Your task to perform on an android device: View the shopping cart on costco.com. Image 0: 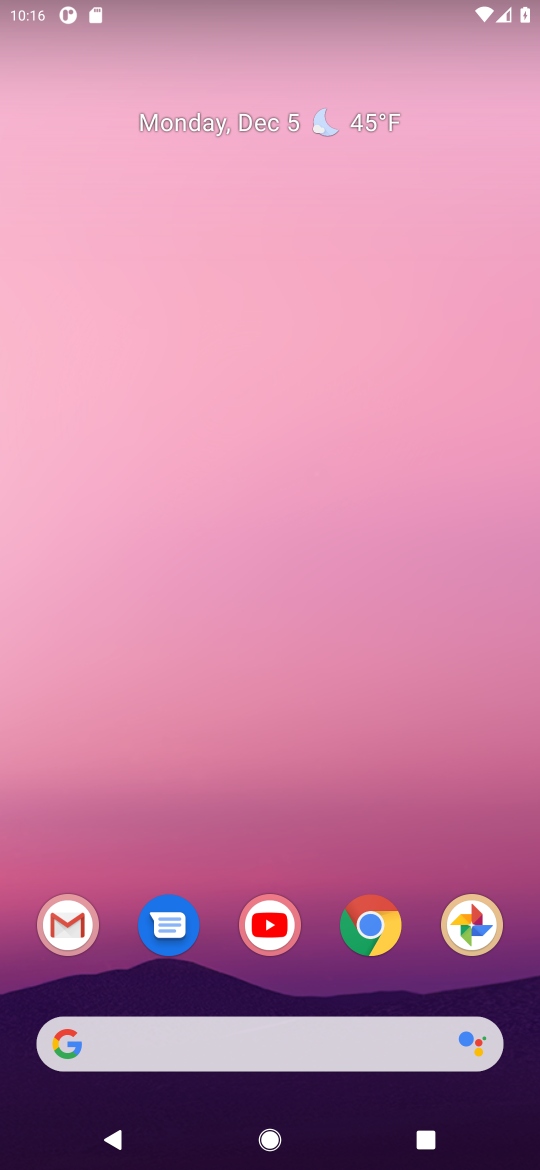
Step 0: click (365, 931)
Your task to perform on an android device: View the shopping cart on costco.com. Image 1: 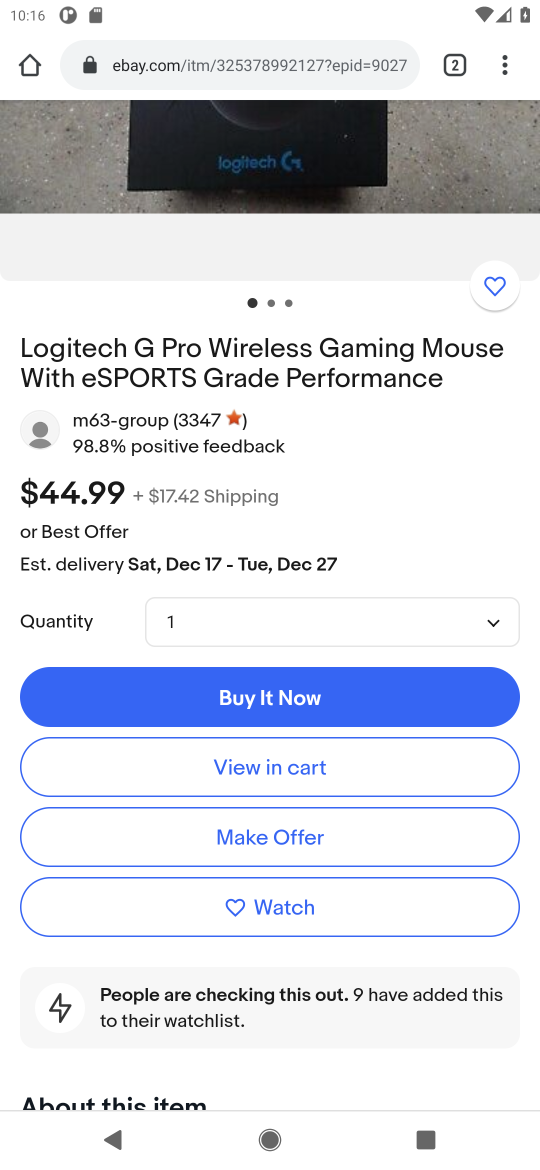
Step 1: click (207, 69)
Your task to perform on an android device: View the shopping cart on costco.com. Image 2: 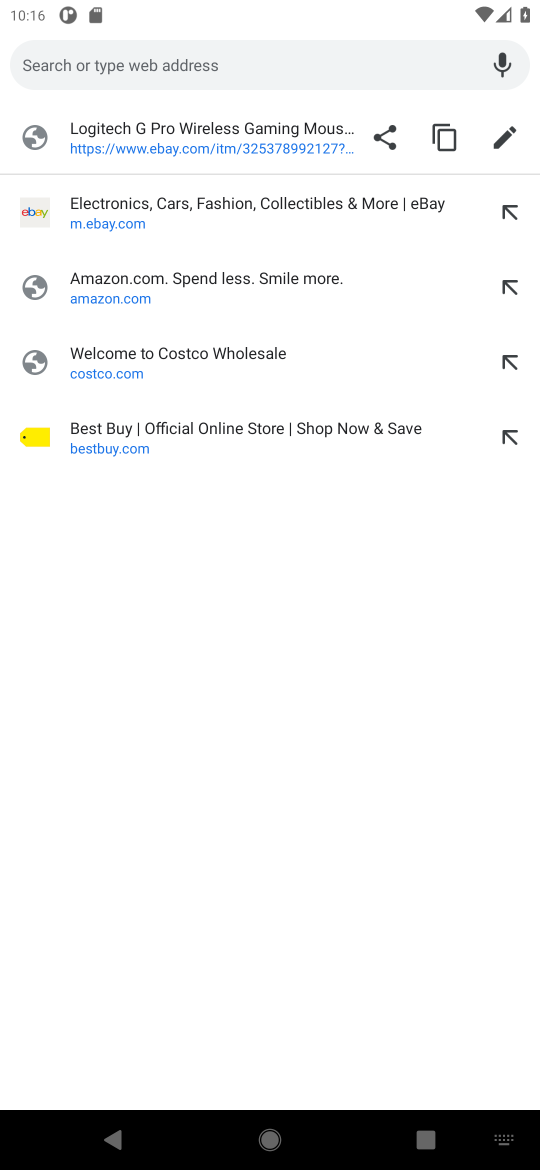
Step 2: click (92, 361)
Your task to perform on an android device: View the shopping cart on costco.com. Image 3: 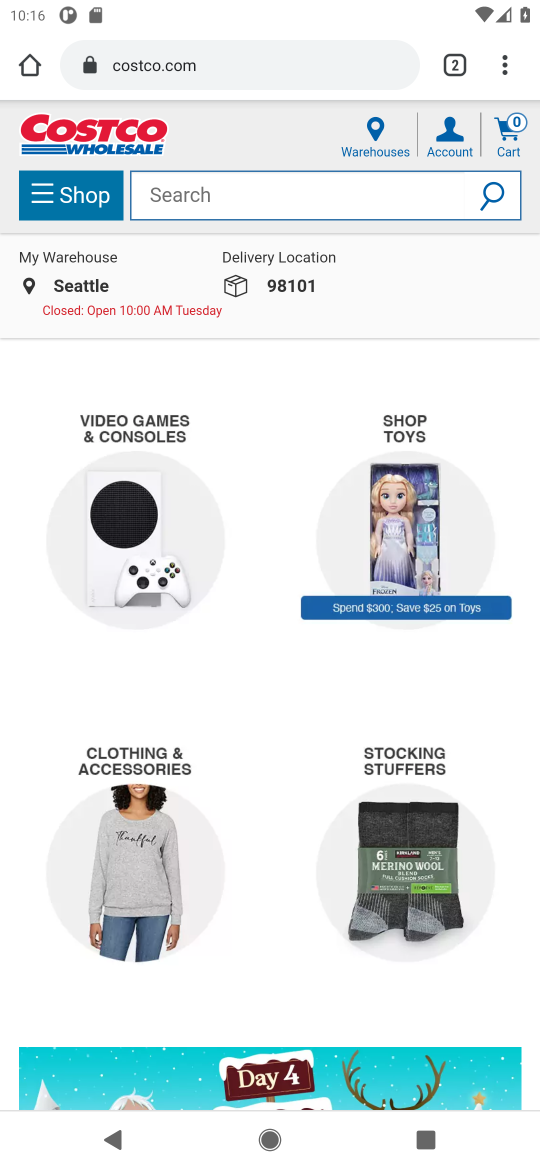
Step 3: click (506, 143)
Your task to perform on an android device: View the shopping cart on costco.com. Image 4: 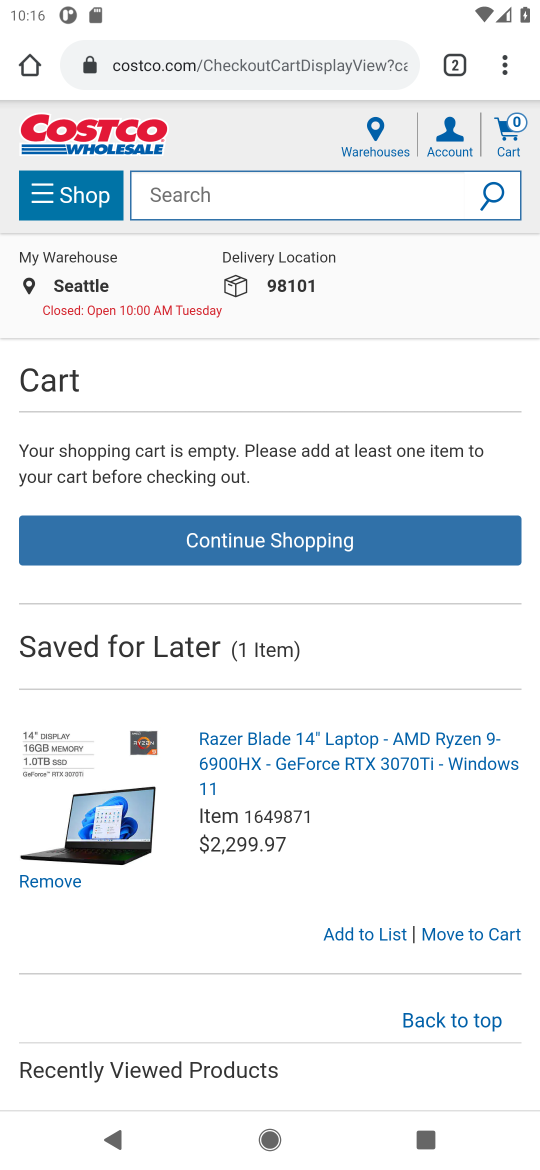
Step 4: task complete